Your task to perform on an android device: Open CNN.com Image 0: 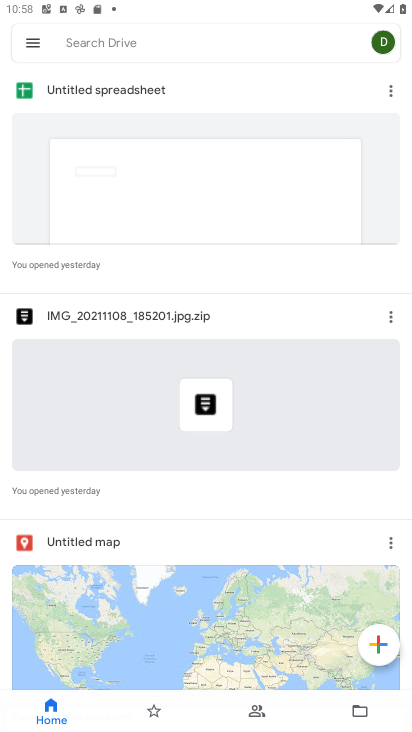
Step 0: press home button
Your task to perform on an android device: Open CNN.com Image 1: 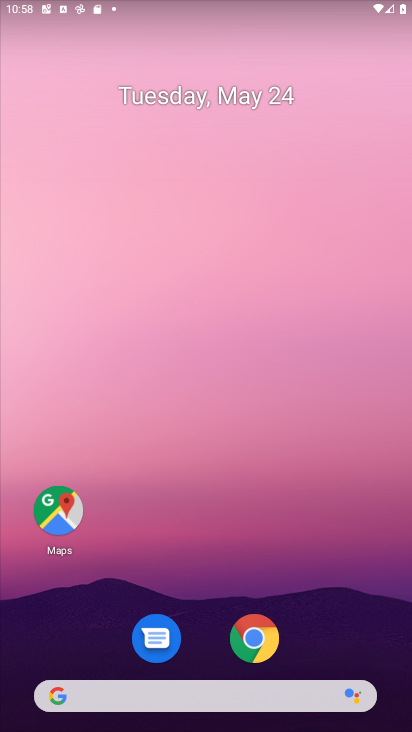
Step 1: click (267, 705)
Your task to perform on an android device: Open CNN.com Image 2: 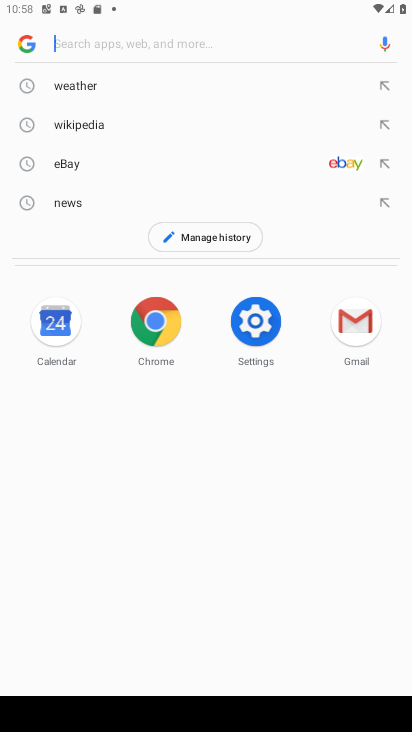
Step 2: type "cnn.com"
Your task to perform on an android device: Open CNN.com Image 3: 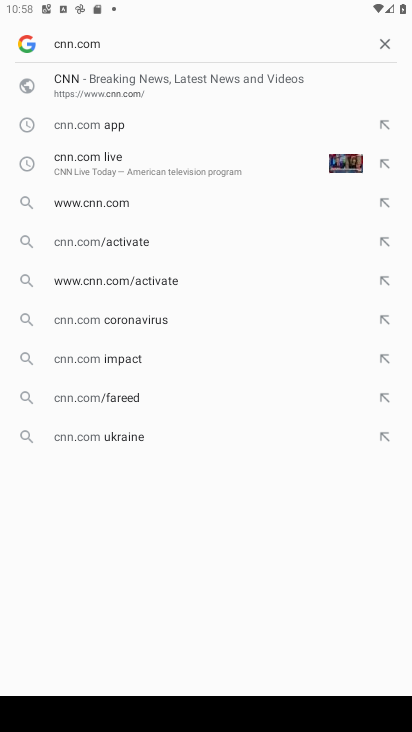
Step 3: click (248, 85)
Your task to perform on an android device: Open CNN.com Image 4: 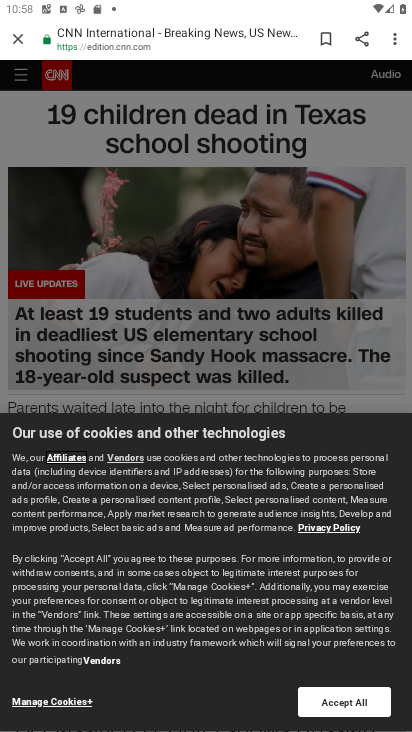
Step 4: task complete